Your task to perform on an android device: Open privacy settings Image 0: 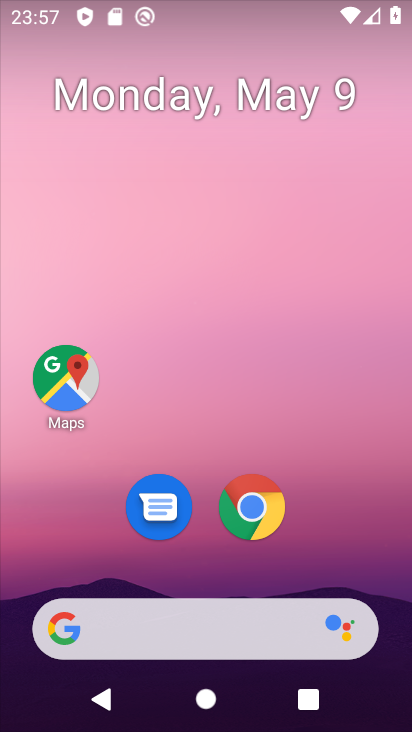
Step 0: drag from (322, 567) to (288, 177)
Your task to perform on an android device: Open privacy settings Image 1: 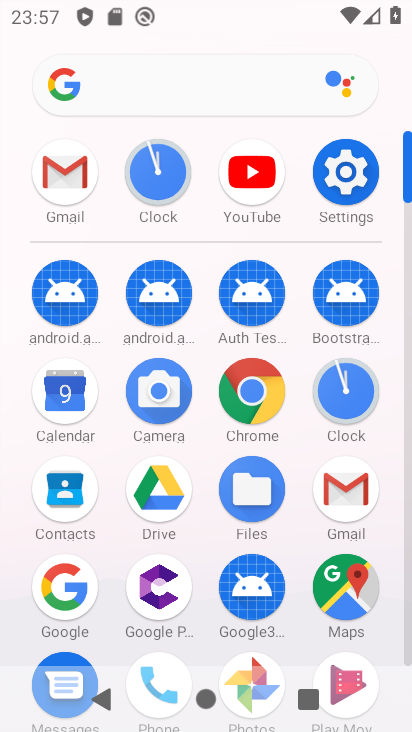
Step 1: click (338, 173)
Your task to perform on an android device: Open privacy settings Image 2: 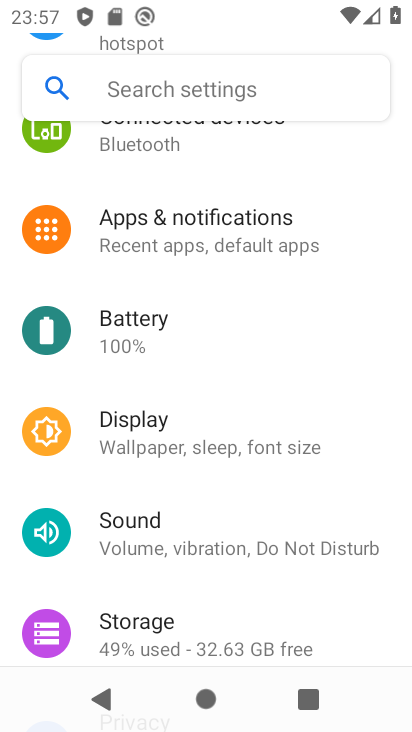
Step 2: drag from (194, 547) to (166, 348)
Your task to perform on an android device: Open privacy settings Image 3: 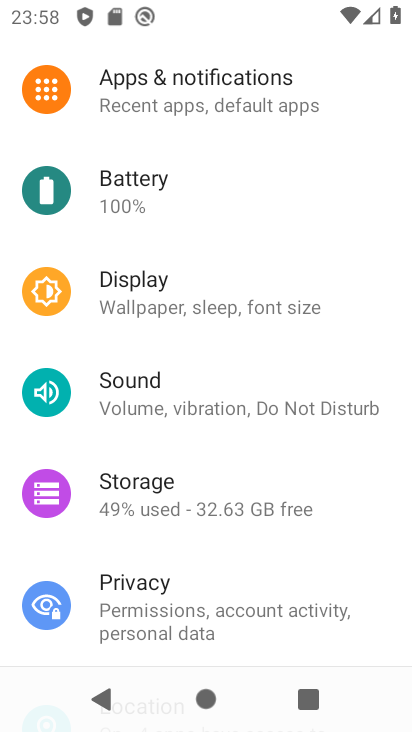
Step 3: click (145, 585)
Your task to perform on an android device: Open privacy settings Image 4: 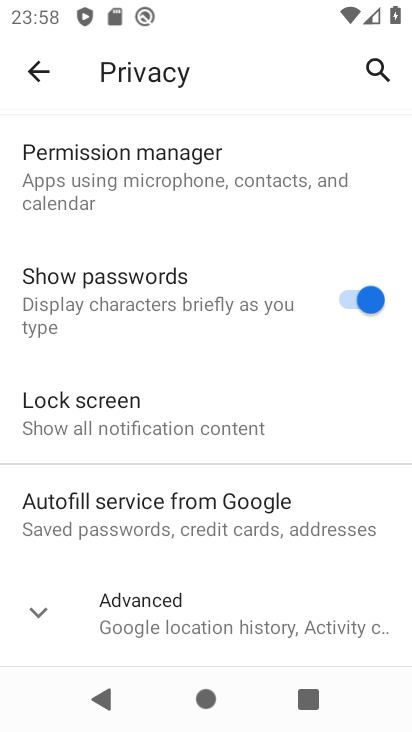
Step 4: task complete